Your task to perform on an android device: Open the Play Movies app and select the watchlist tab. Image 0: 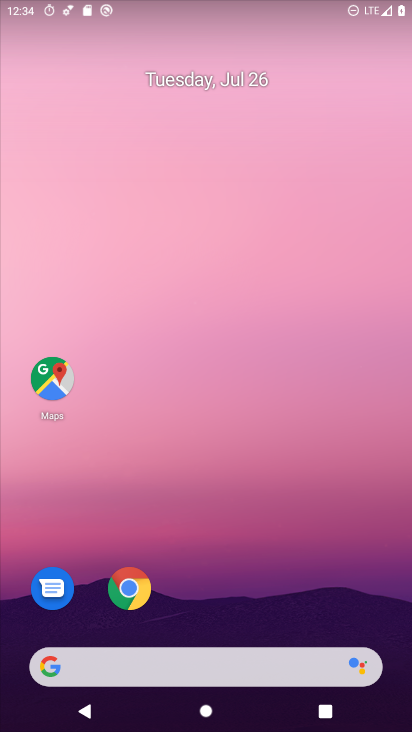
Step 0: drag from (238, 597) to (170, 0)
Your task to perform on an android device: Open the Play Movies app and select the watchlist tab. Image 1: 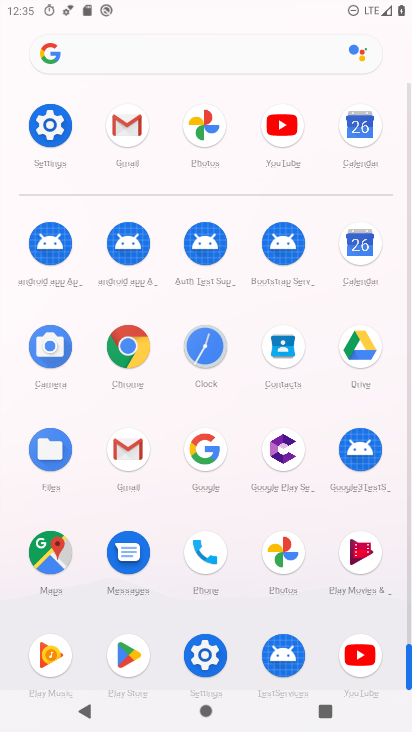
Step 1: click (366, 559)
Your task to perform on an android device: Open the Play Movies app and select the watchlist tab. Image 2: 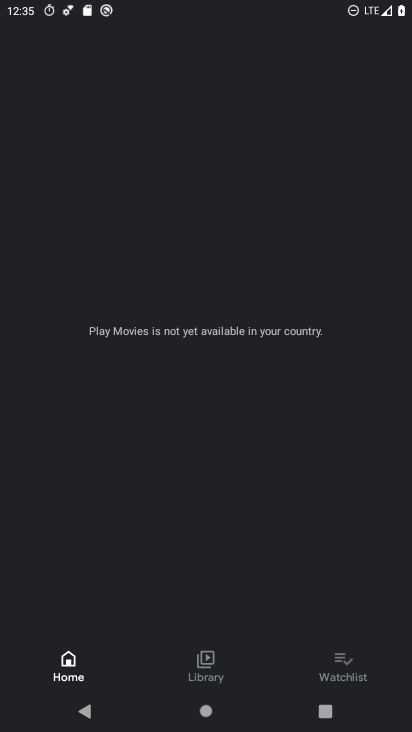
Step 2: click (342, 680)
Your task to perform on an android device: Open the Play Movies app and select the watchlist tab. Image 3: 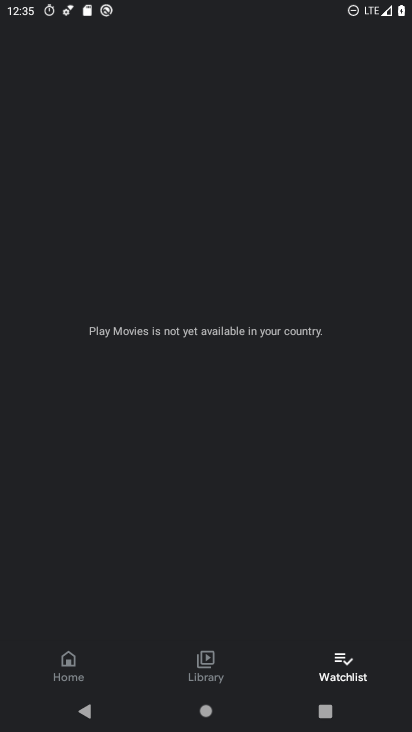
Step 3: task complete